Your task to perform on an android device: Toggle the flashlight Image 0: 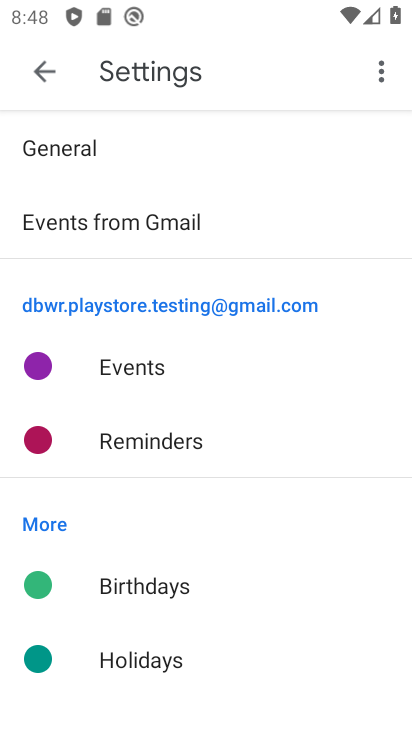
Step 0: press home button
Your task to perform on an android device: Toggle the flashlight Image 1: 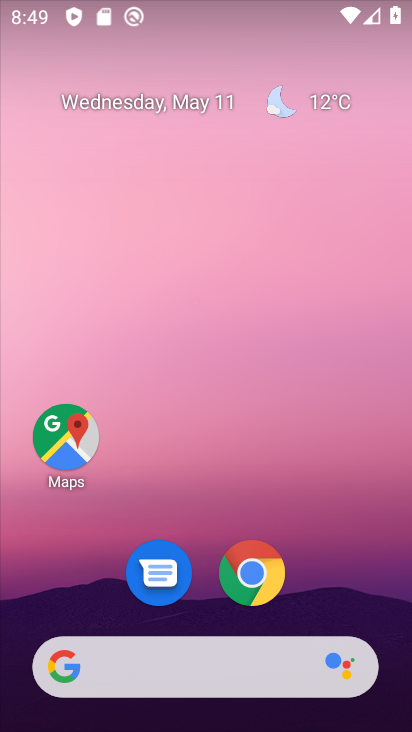
Step 1: task complete